Your task to perform on an android device: add a contact Image 0: 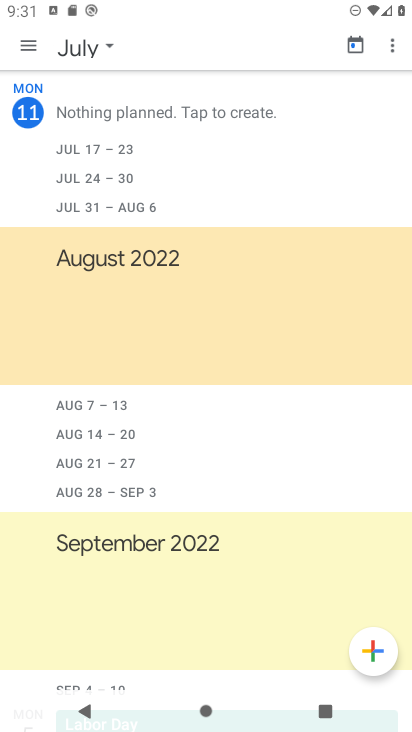
Step 0: press home button
Your task to perform on an android device: add a contact Image 1: 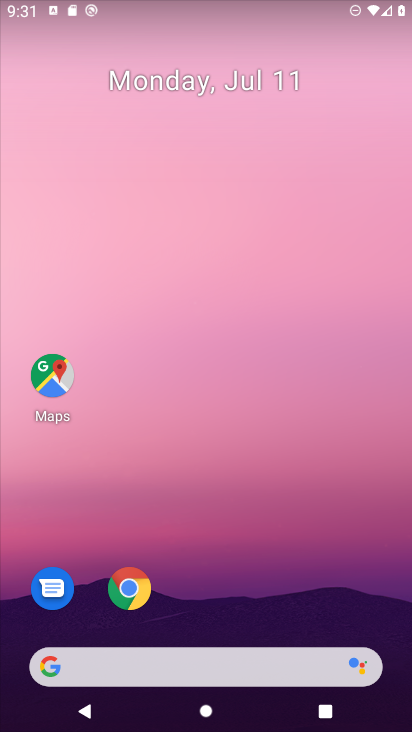
Step 1: drag from (400, 656) to (236, 5)
Your task to perform on an android device: add a contact Image 2: 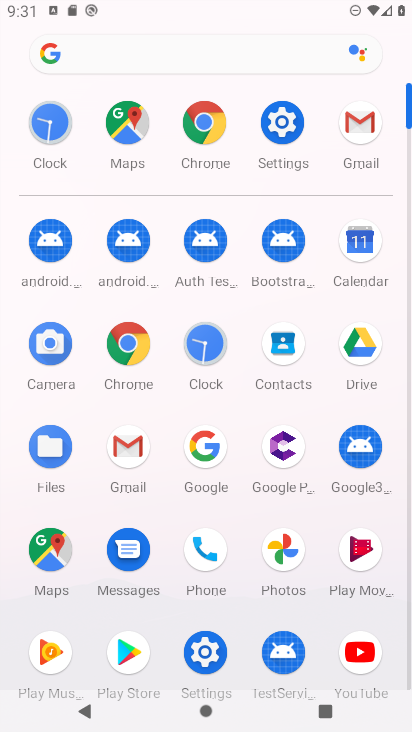
Step 2: click (279, 336)
Your task to perform on an android device: add a contact Image 3: 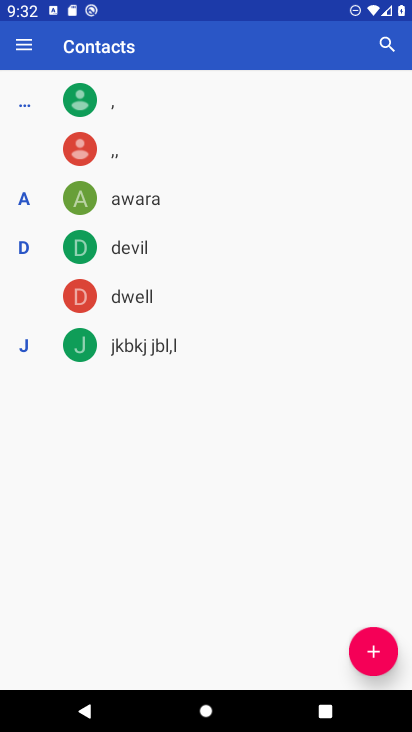
Step 3: click (365, 648)
Your task to perform on an android device: add a contact Image 4: 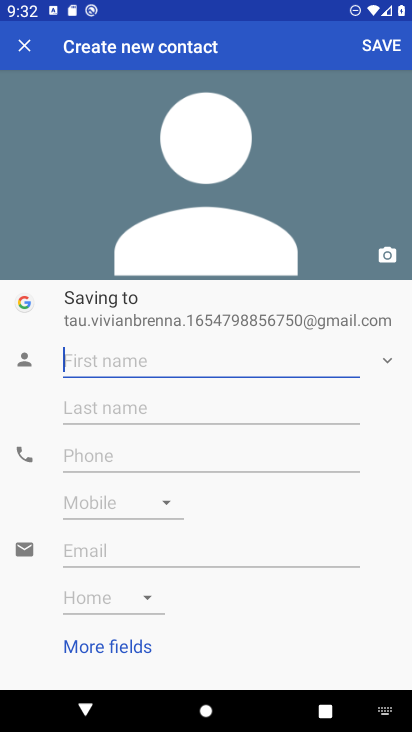
Step 4: type "yo"
Your task to perform on an android device: add a contact Image 5: 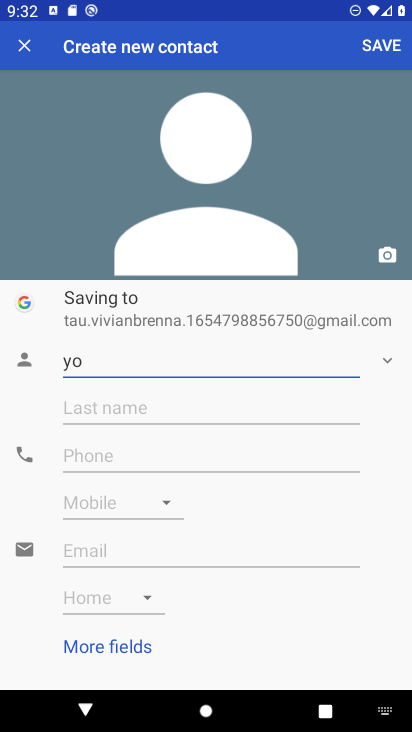
Step 5: click (376, 39)
Your task to perform on an android device: add a contact Image 6: 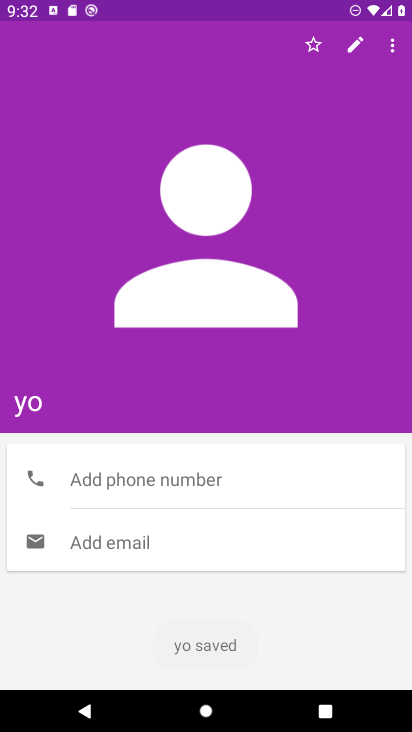
Step 6: task complete